Your task to perform on an android device: open chrome privacy settings Image 0: 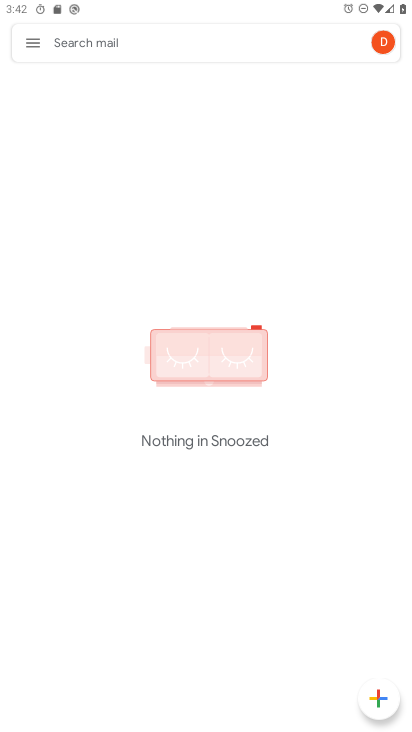
Step 0: press home button
Your task to perform on an android device: open chrome privacy settings Image 1: 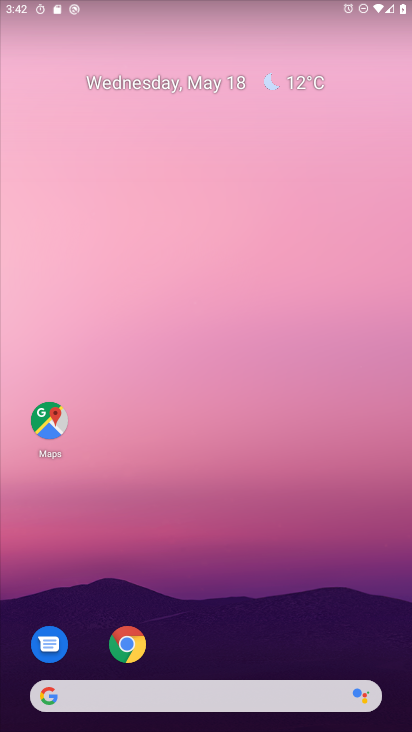
Step 1: click (123, 645)
Your task to perform on an android device: open chrome privacy settings Image 2: 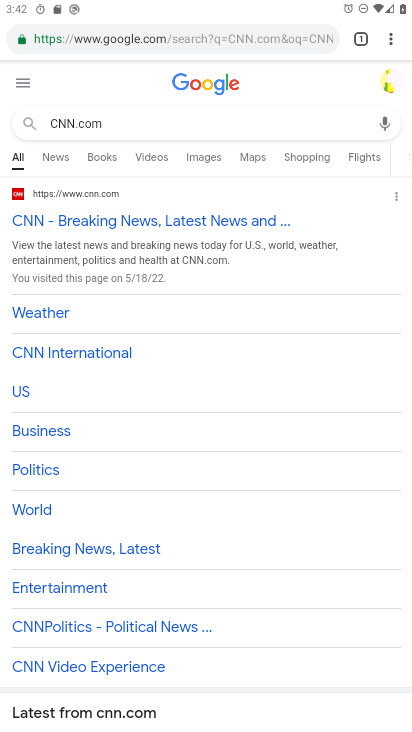
Step 2: click (390, 37)
Your task to perform on an android device: open chrome privacy settings Image 3: 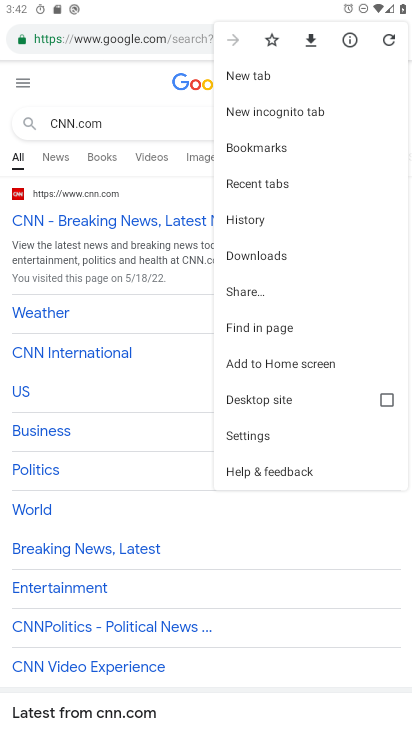
Step 3: click (249, 430)
Your task to perform on an android device: open chrome privacy settings Image 4: 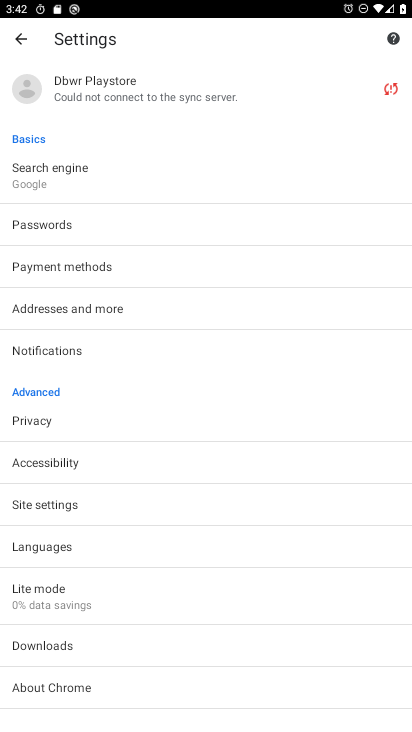
Step 4: click (36, 503)
Your task to perform on an android device: open chrome privacy settings Image 5: 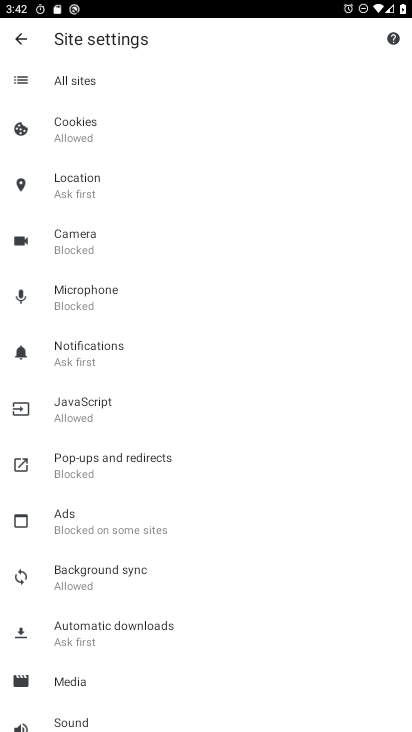
Step 5: click (19, 41)
Your task to perform on an android device: open chrome privacy settings Image 6: 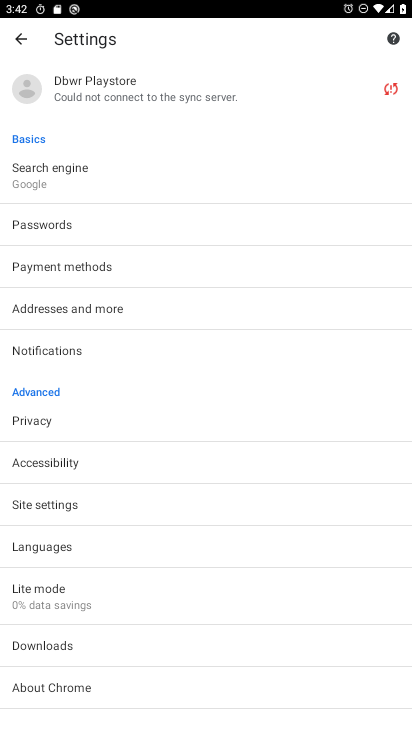
Step 6: click (40, 410)
Your task to perform on an android device: open chrome privacy settings Image 7: 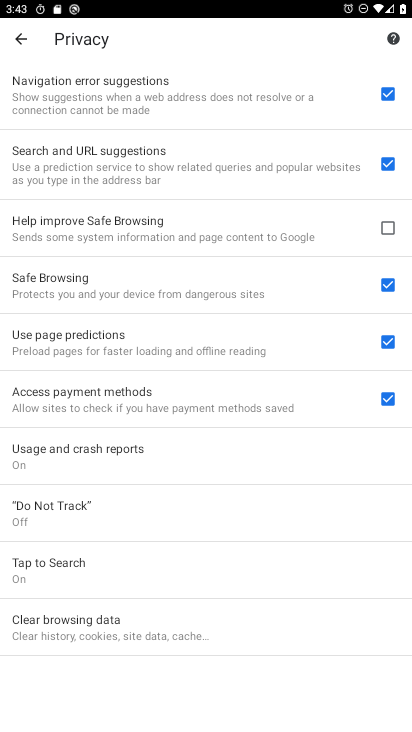
Step 7: task complete